Your task to perform on an android device: Open Google Chrome Image 0: 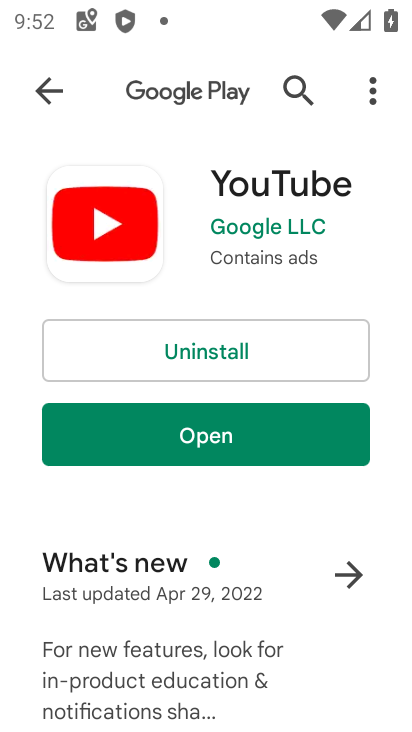
Step 0: press home button
Your task to perform on an android device: Open Google Chrome Image 1: 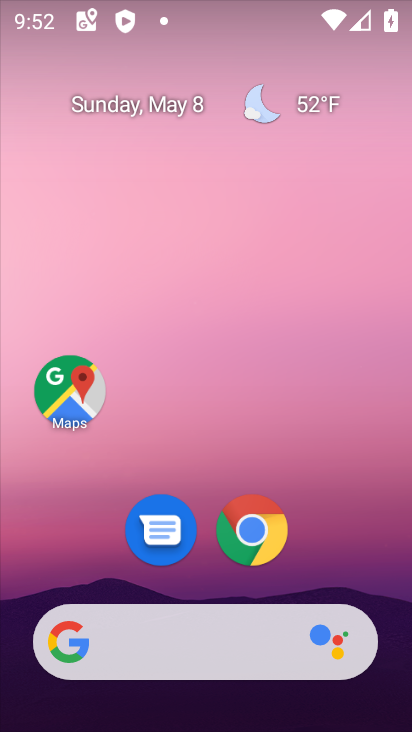
Step 1: drag from (353, 533) to (383, 134)
Your task to perform on an android device: Open Google Chrome Image 2: 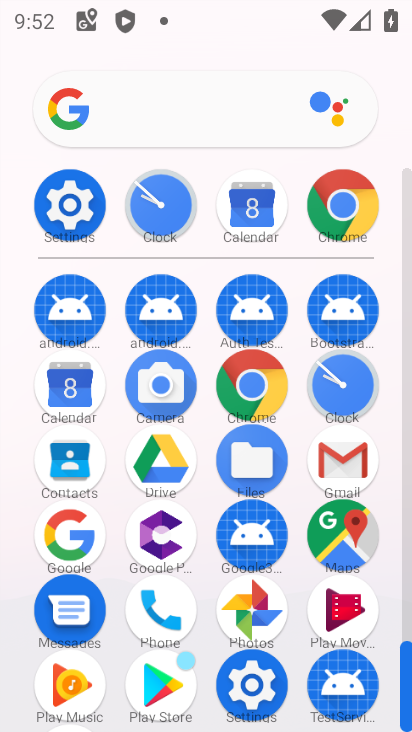
Step 2: click (242, 399)
Your task to perform on an android device: Open Google Chrome Image 3: 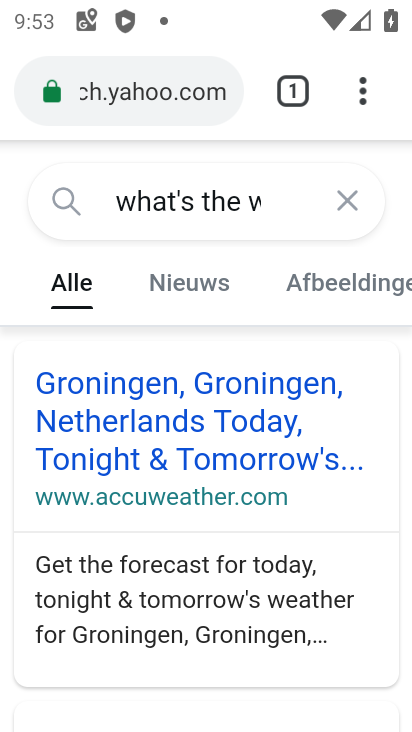
Step 3: task complete